Your task to perform on an android device: Show me productivity apps on the Play Store Image 0: 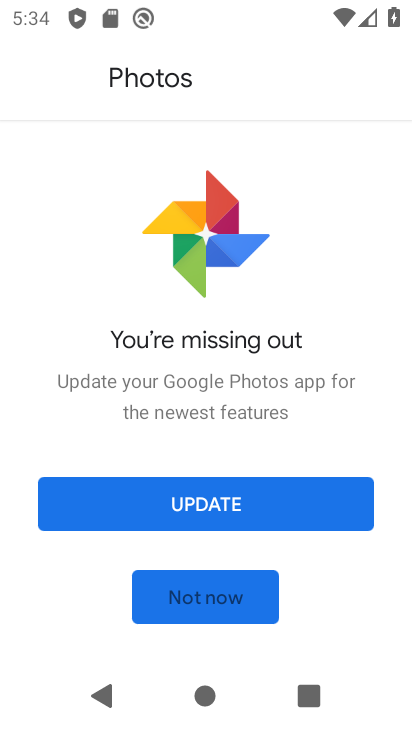
Step 0: press home button
Your task to perform on an android device: Show me productivity apps on the Play Store Image 1: 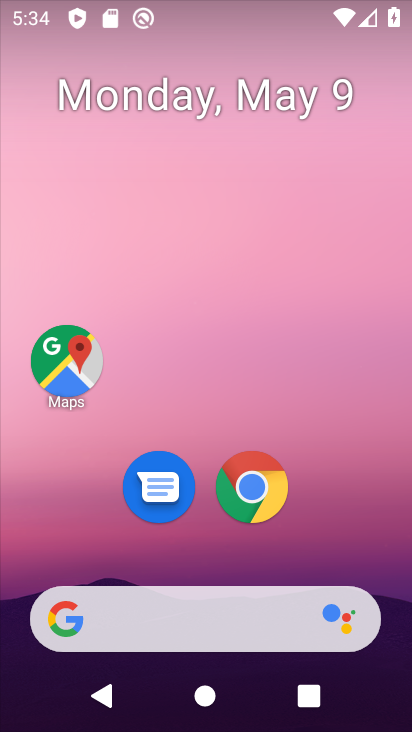
Step 1: drag from (337, 561) to (302, 86)
Your task to perform on an android device: Show me productivity apps on the Play Store Image 2: 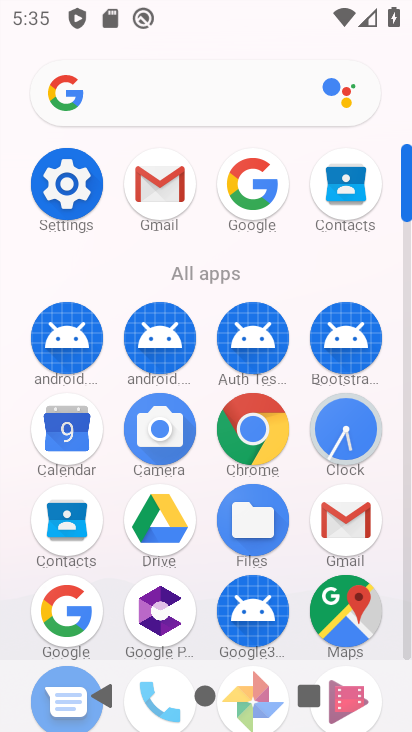
Step 2: drag from (301, 640) to (260, 213)
Your task to perform on an android device: Show me productivity apps on the Play Store Image 3: 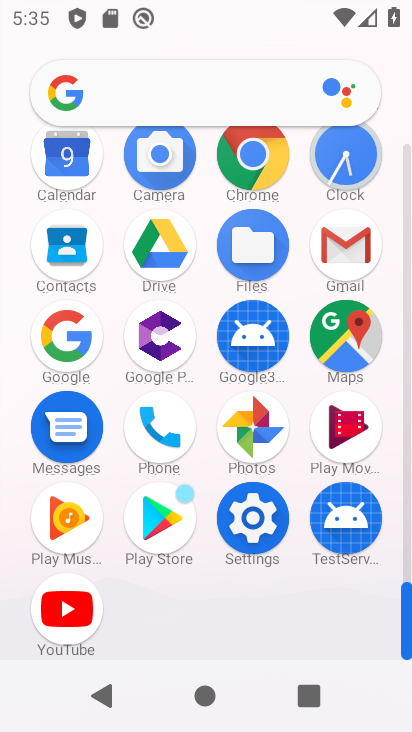
Step 3: click (151, 545)
Your task to perform on an android device: Show me productivity apps on the Play Store Image 4: 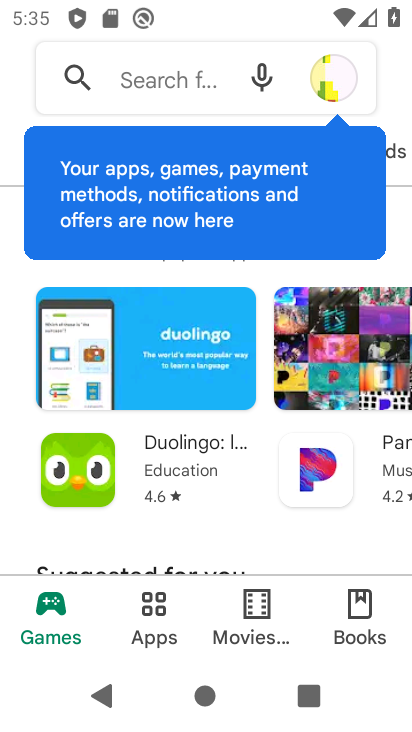
Step 4: click (190, 87)
Your task to perform on an android device: Show me productivity apps on the Play Store Image 5: 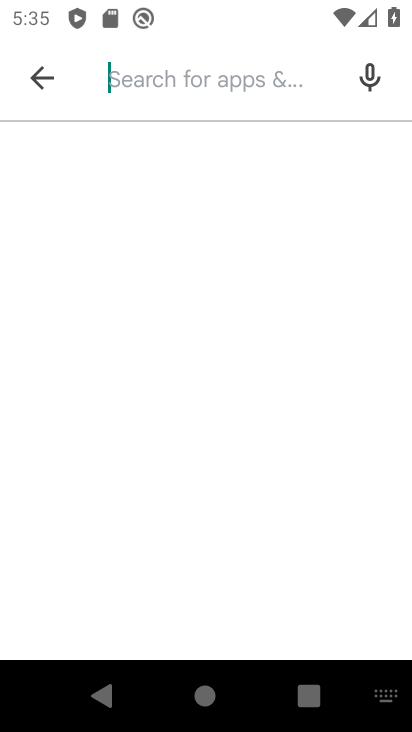
Step 5: type "productivity apps"
Your task to perform on an android device: Show me productivity apps on the Play Store Image 6: 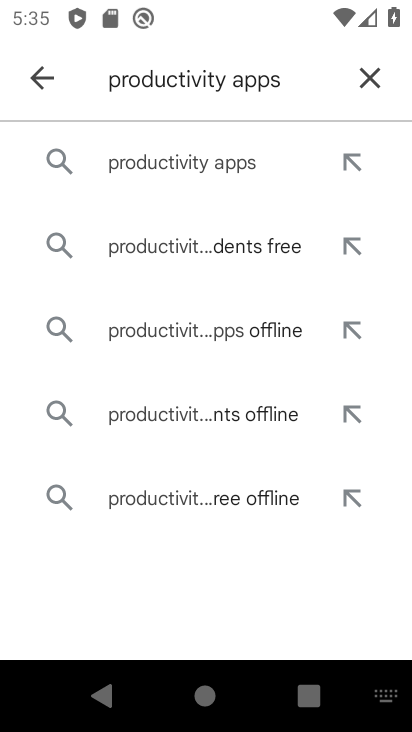
Step 6: click (191, 174)
Your task to perform on an android device: Show me productivity apps on the Play Store Image 7: 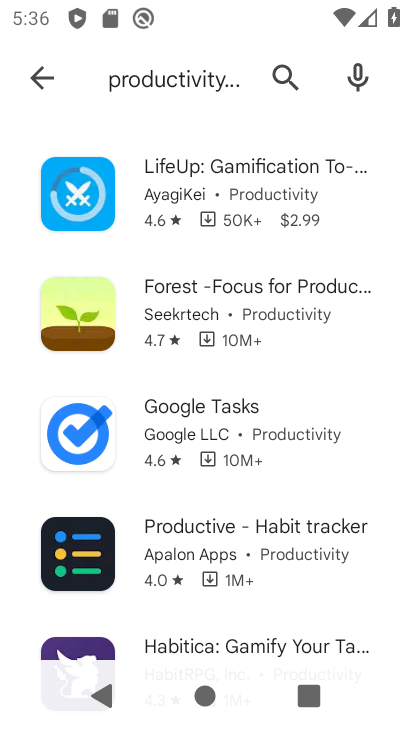
Step 7: task complete